Your task to perform on an android device: What's the weather? Image 0: 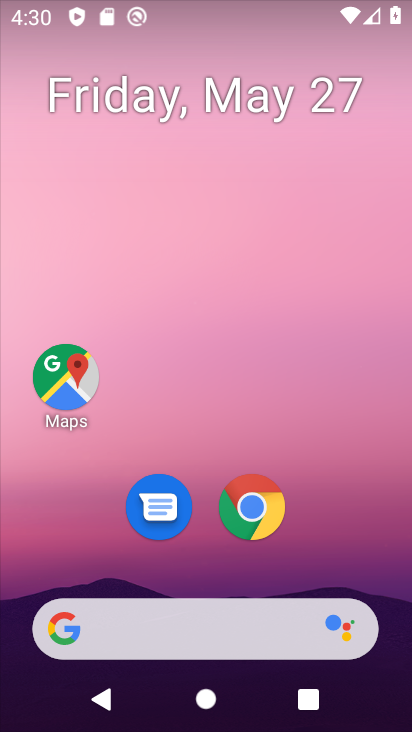
Step 0: drag from (346, 550) to (209, 82)
Your task to perform on an android device: What's the weather? Image 1: 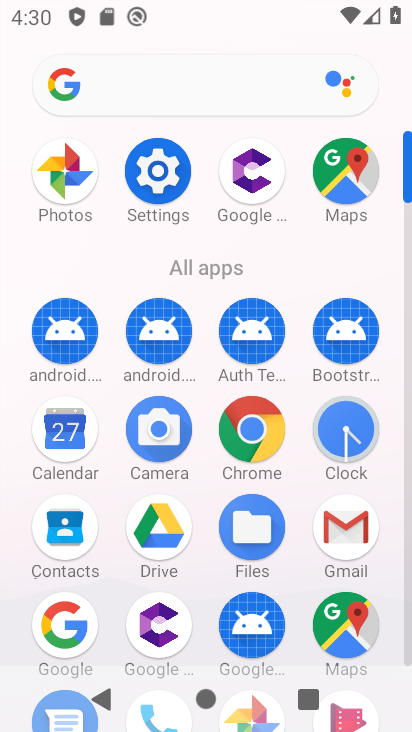
Step 1: click (55, 620)
Your task to perform on an android device: What's the weather? Image 2: 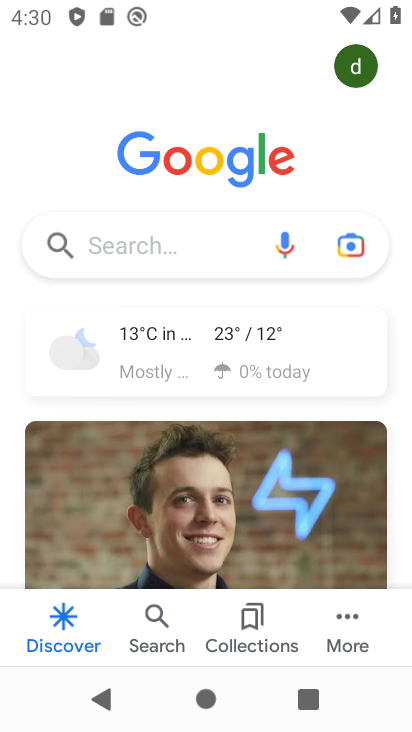
Step 2: click (210, 342)
Your task to perform on an android device: What's the weather? Image 3: 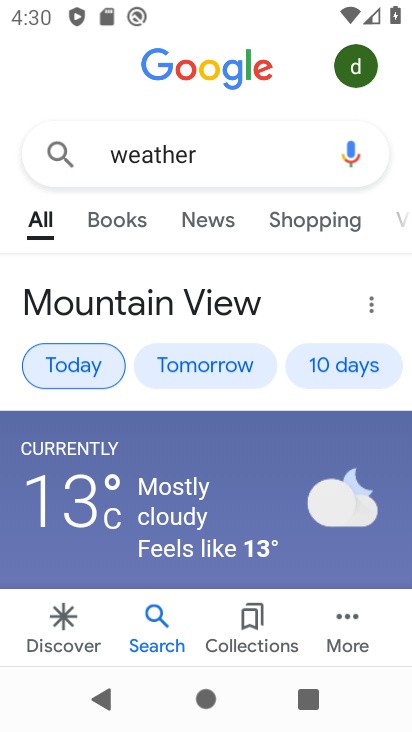
Step 3: task complete